Your task to perform on an android device: open device folders in google photos Image 0: 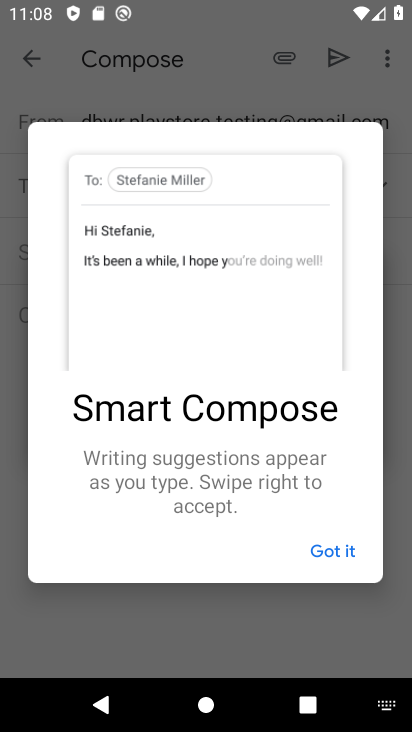
Step 0: press home button
Your task to perform on an android device: open device folders in google photos Image 1: 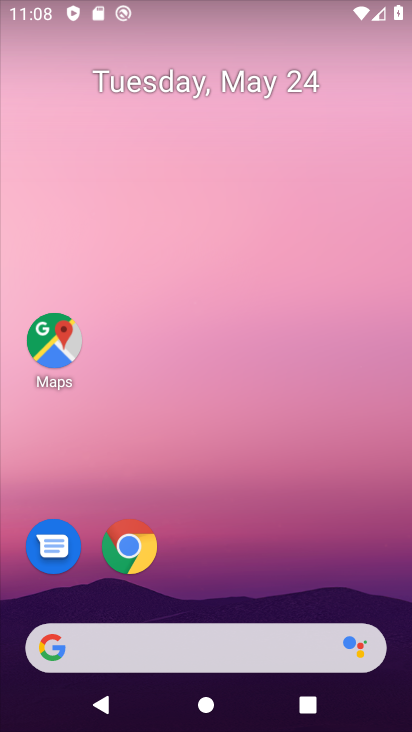
Step 1: drag from (256, 580) to (190, 91)
Your task to perform on an android device: open device folders in google photos Image 2: 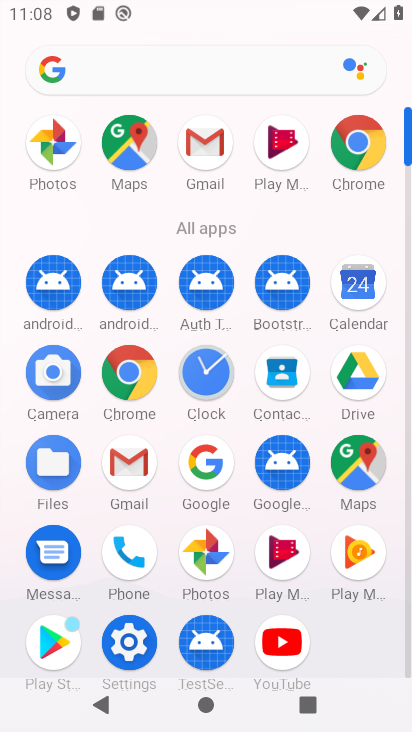
Step 2: click (59, 150)
Your task to perform on an android device: open device folders in google photos Image 3: 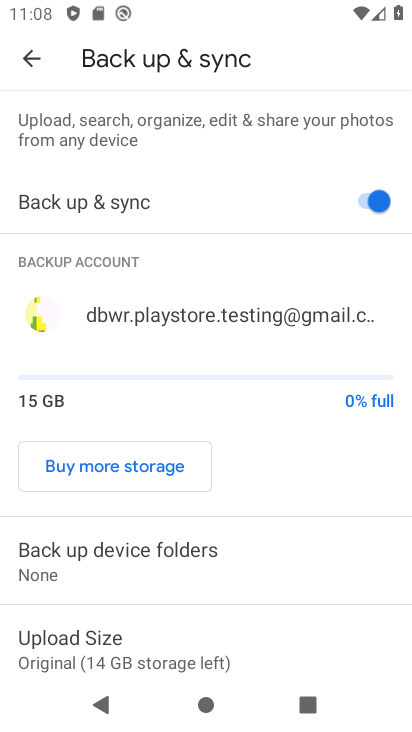
Step 3: click (39, 61)
Your task to perform on an android device: open device folders in google photos Image 4: 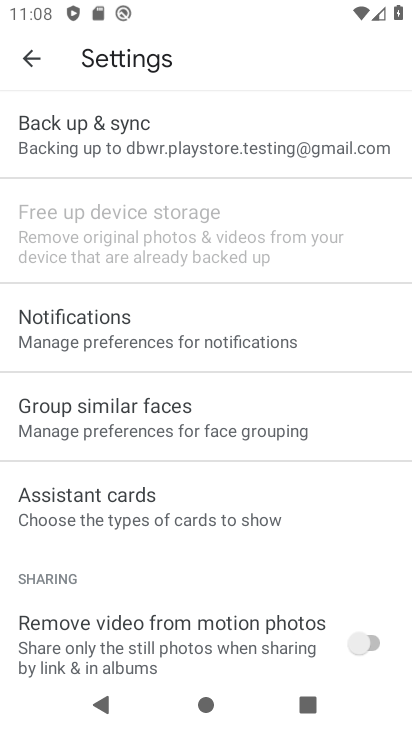
Step 4: click (33, 59)
Your task to perform on an android device: open device folders in google photos Image 5: 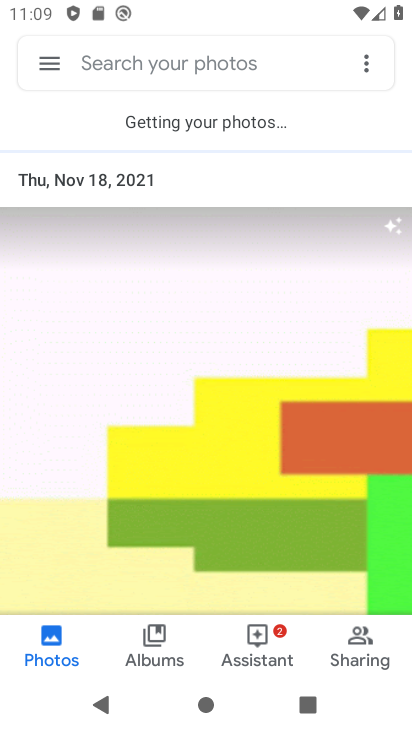
Step 5: click (33, 59)
Your task to perform on an android device: open device folders in google photos Image 6: 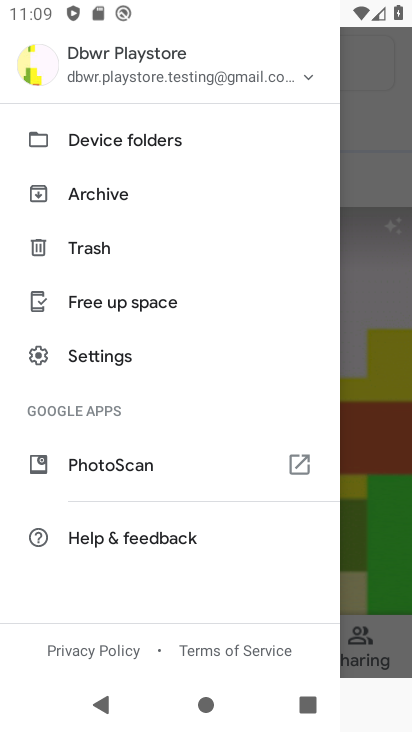
Step 6: click (77, 145)
Your task to perform on an android device: open device folders in google photos Image 7: 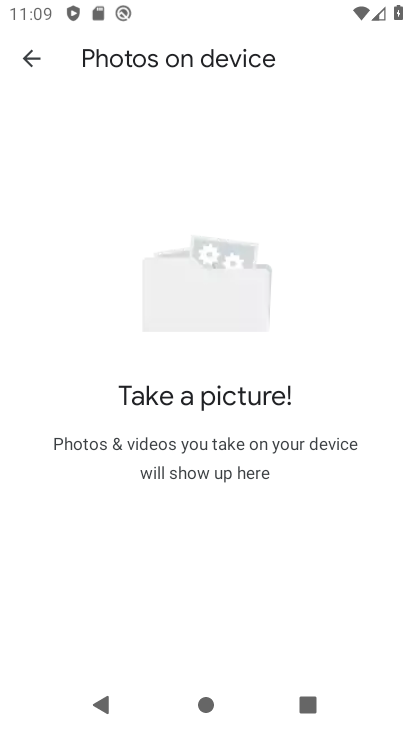
Step 7: task complete